Your task to perform on an android device: Open privacy settings Image 0: 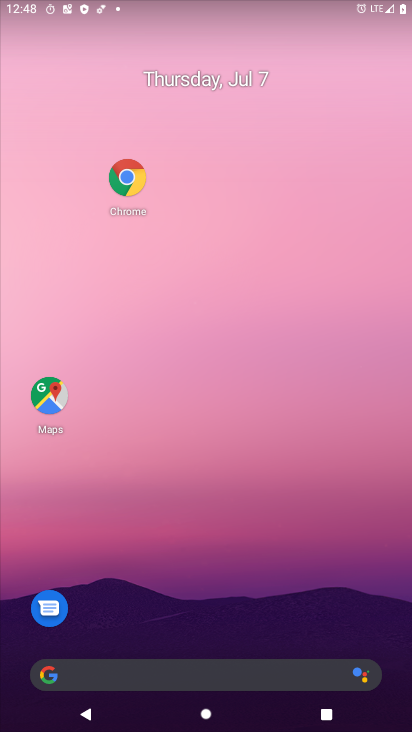
Step 0: drag from (186, 631) to (225, 249)
Your task to perform on an android device: Open privacy settings Image 1: 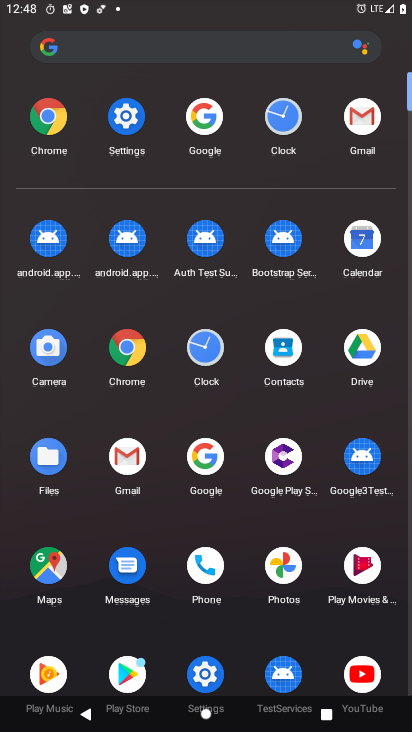
Step 1: click (115, 118)
Your task to perform on an android device: Open privacy settings Image 2: 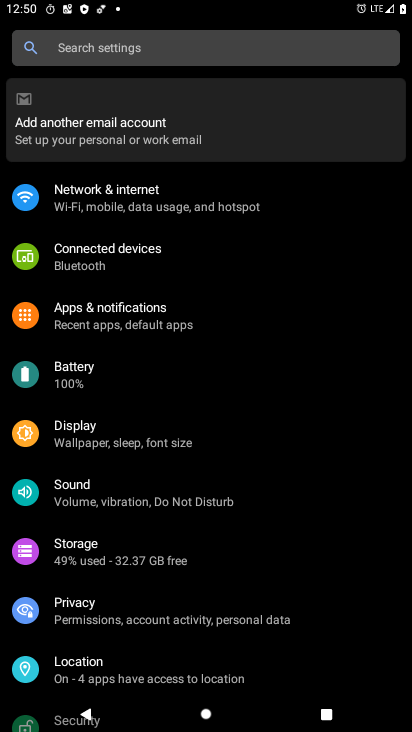
Step 2: click (96, 599)
Your task to perform on an android device: Open privacy settings Image 3: 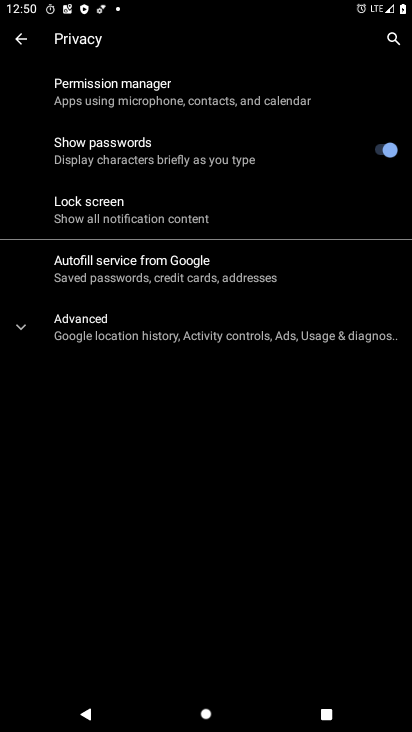
Step 3: click (171, 331)
Your task to perform on an android device: Open privacy settings Image 4: 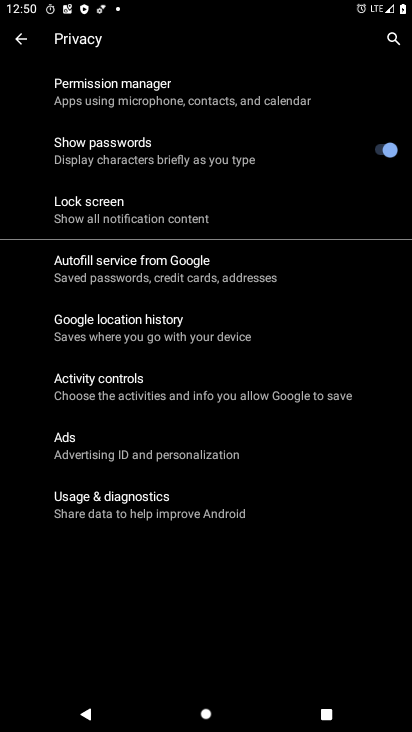
Step 4: task complete